Your task to perform on an android device: Clear the cart on ebay. Add "macbook pro 15 inch" to the cart on ebay Image 0: 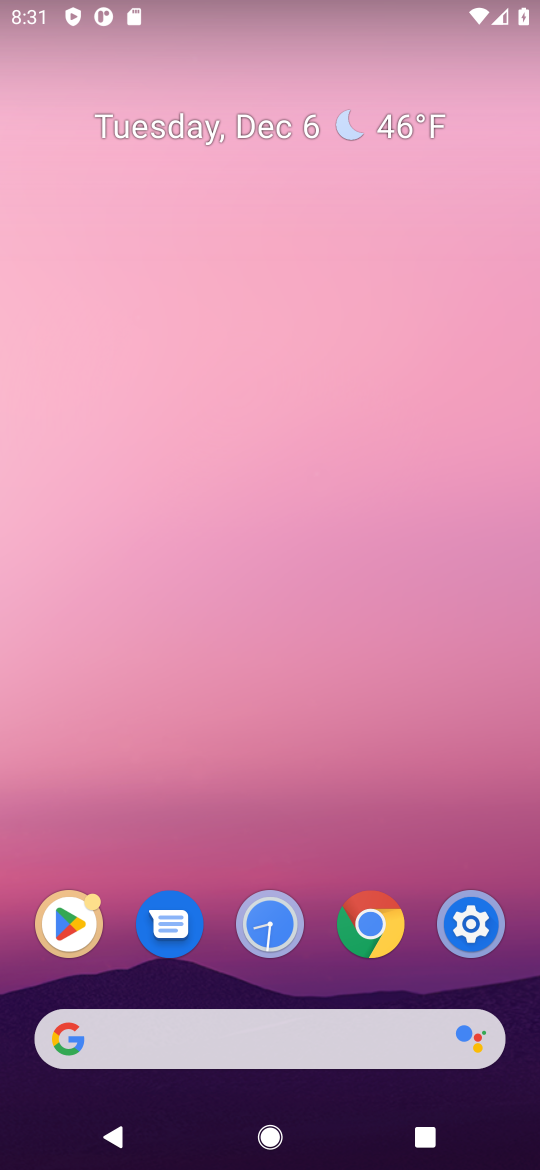
Step 0: click (253, 1047)
Your task to perform on an android device: Clear the cart on ebay. Add "macbook pro 15 inch" to the cart on ebay Image 1: 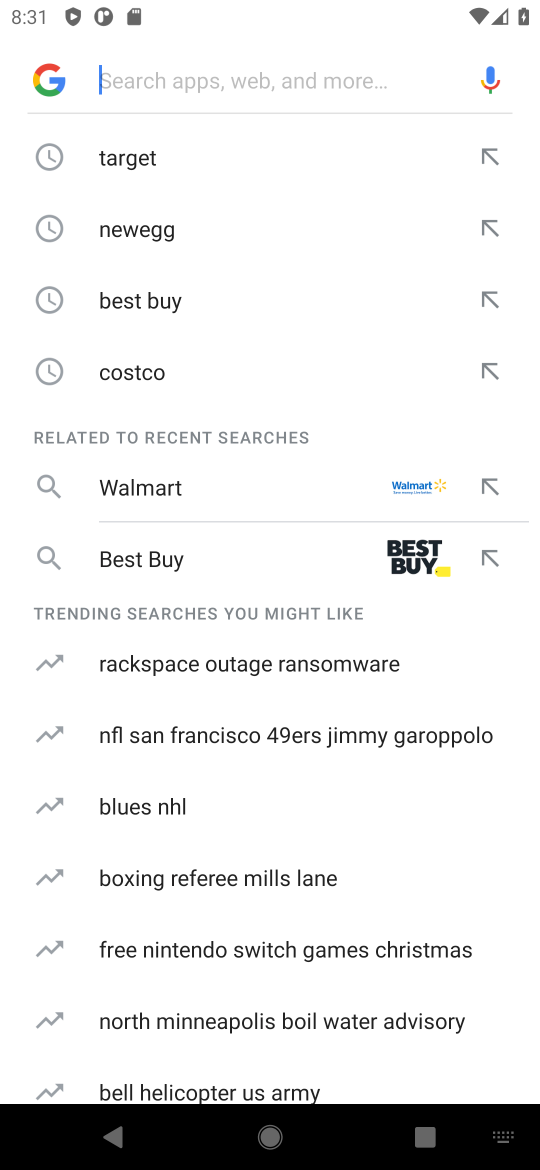
Step 1: type "ebay"
Your task to perform on an android device: Clear the cart on ebay. Add "macbook pro 15 inch" to the cart on ebay Image 2: 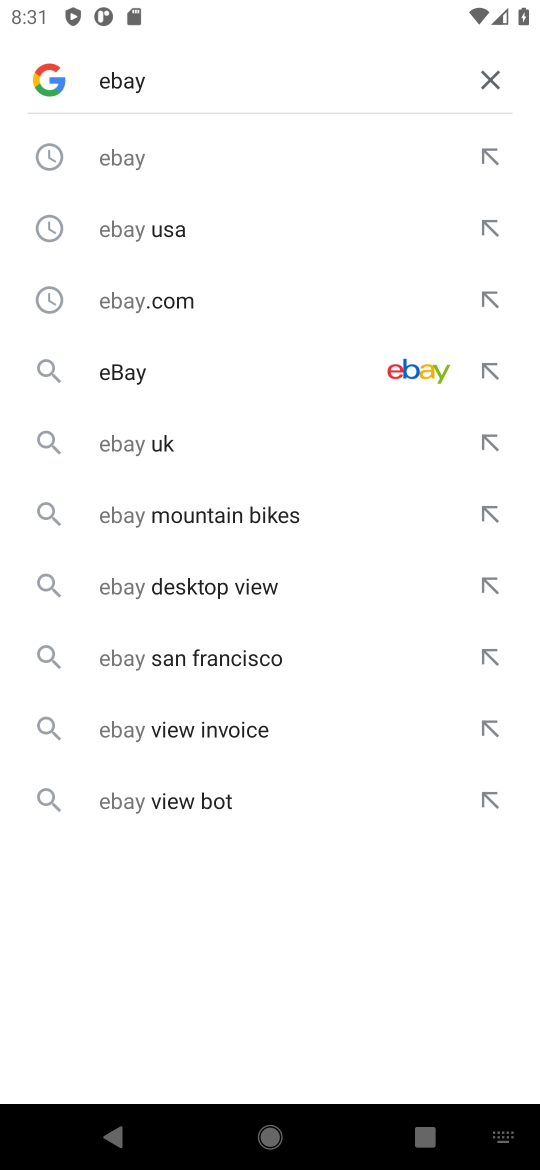
Step 2: click (298, 370)
Your task to perform on an android device: Clear the cart on ebay. Add "macbook pro 15 inch" to the cart on ebay Image 3: 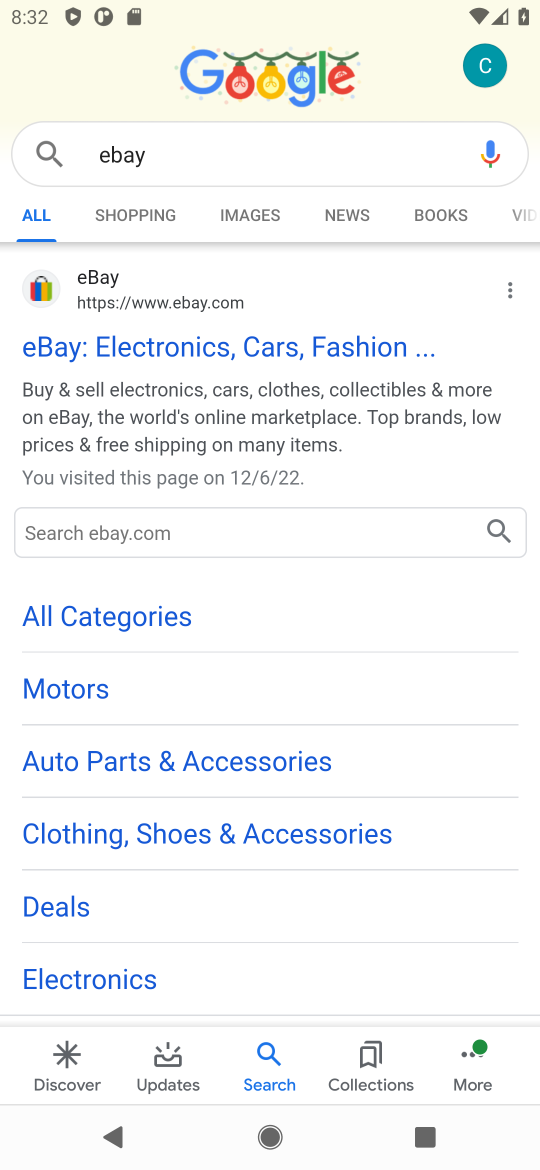
Step 3: click (247, 343)
Your task to perform on an android device: Clear the cart on ebay. Add "macbook pro 15 inch" to the cart on ebay Image 4: 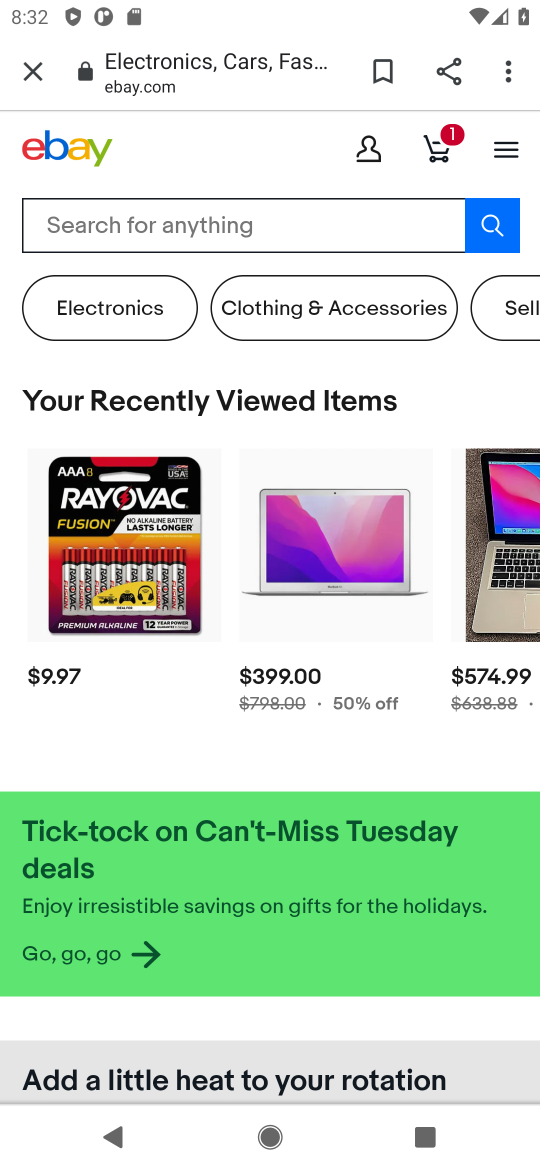
Step 4: click (275, 232)
Your task to perform on an android device: Clear the cart on ebay. Add "macbook pro 15 inch" to the cart on ebay Image 5: 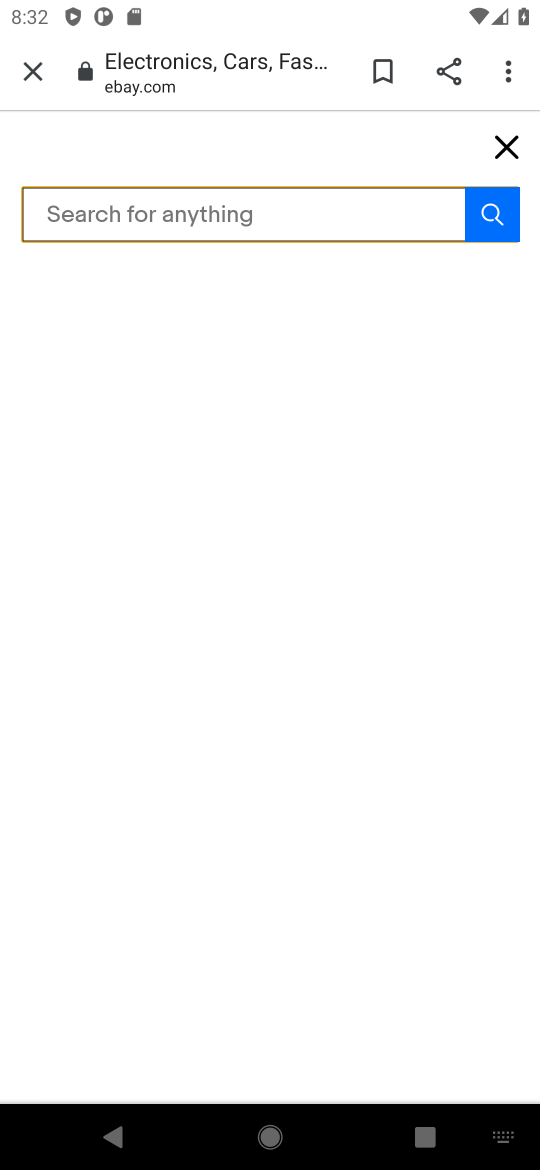
Step 5: type "macbook pro 15 inch"
Your task to perform on an android device: Clear the cart on ebay. Add "macbook pro 15 inch" to the cart on ebay Image 6: 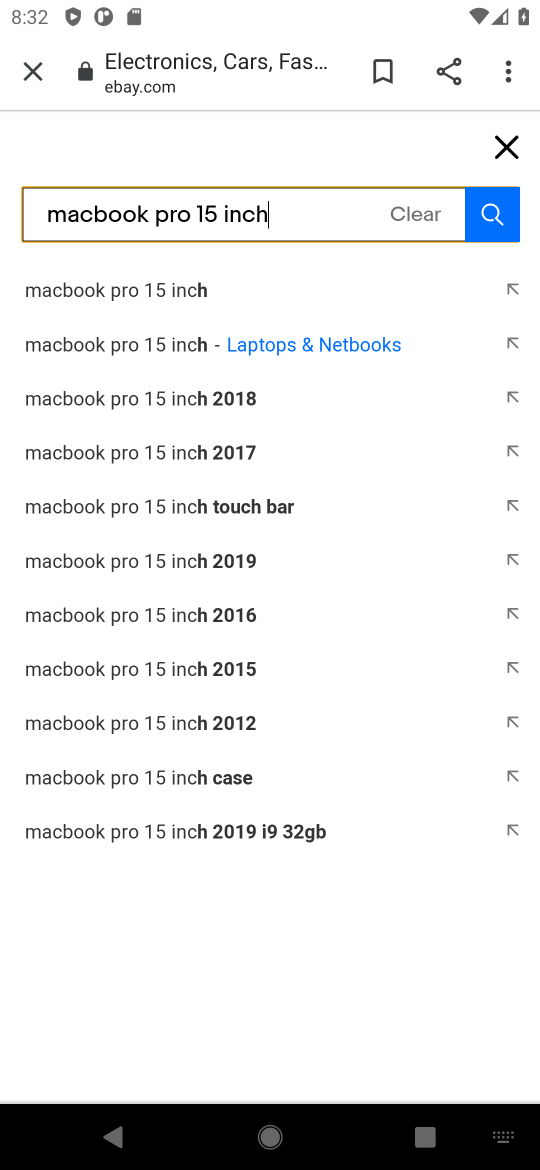
Step 6: click (490, 211)
Your task to perform on an android device: Clear the cart on ebay. Add "macbook pro 15 inch" to the cart on ebay Image 7: 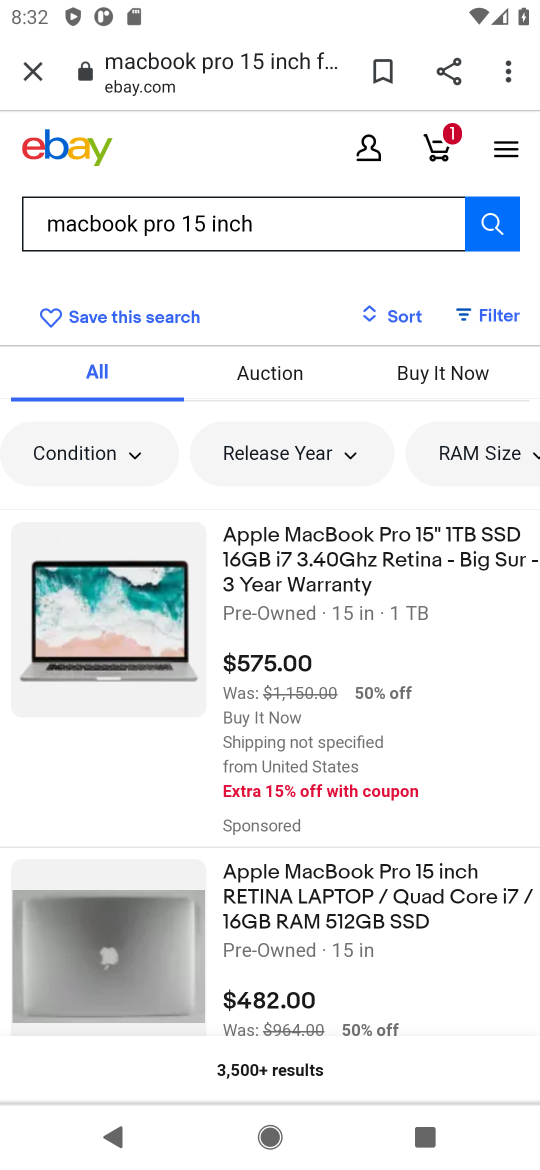
Step 7: click (260, 536)
Your task to perform on an android device: Clear the cart on ebay. Add "macbook pro 15 inch" to the cart on ebay Image 8: 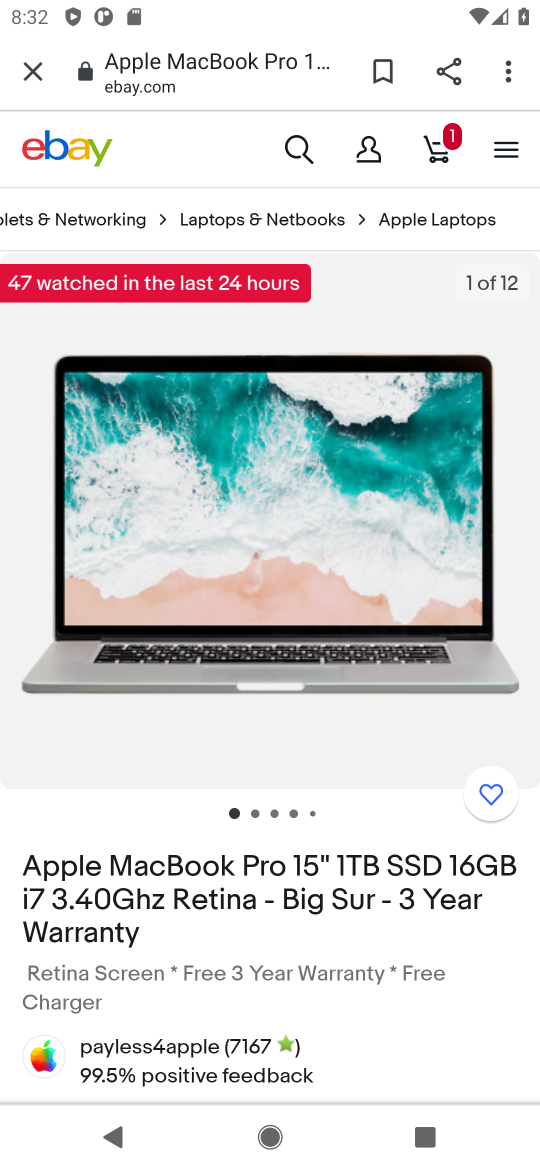
Step 8: drag from (288, 828) to (315, 386)
Your task to perform on an android device: Clear the cart on ebay. Add "macbook pro 15 inch" to the cart on ebay Image 9: 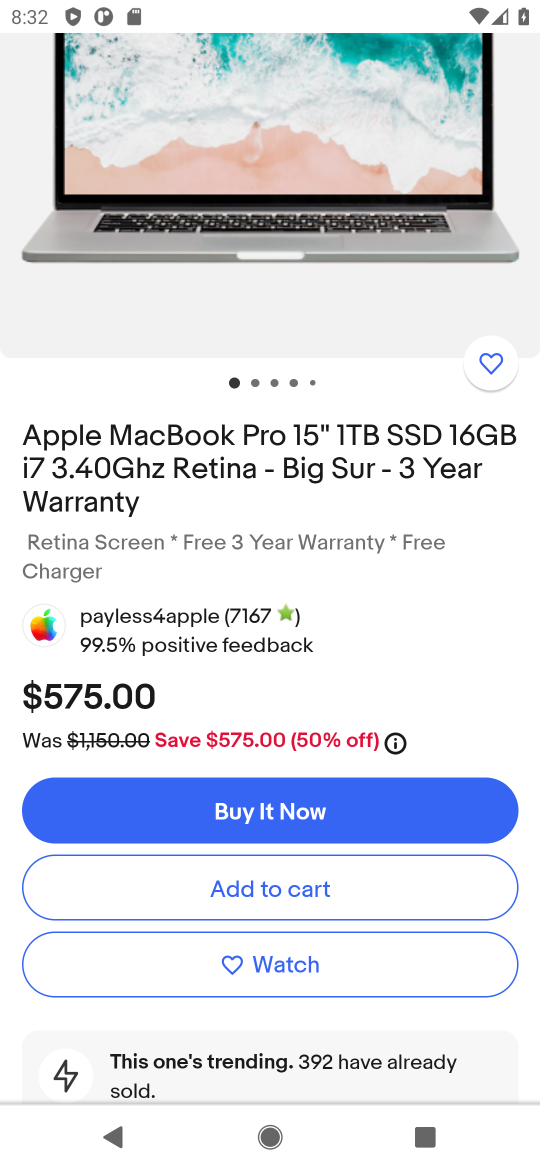
Step 9: click (347, 869)
Your task to perform on an android device: Clear the cart on ebay. Add "macbook pro 15 inch" to the cart on ebay Image 10: 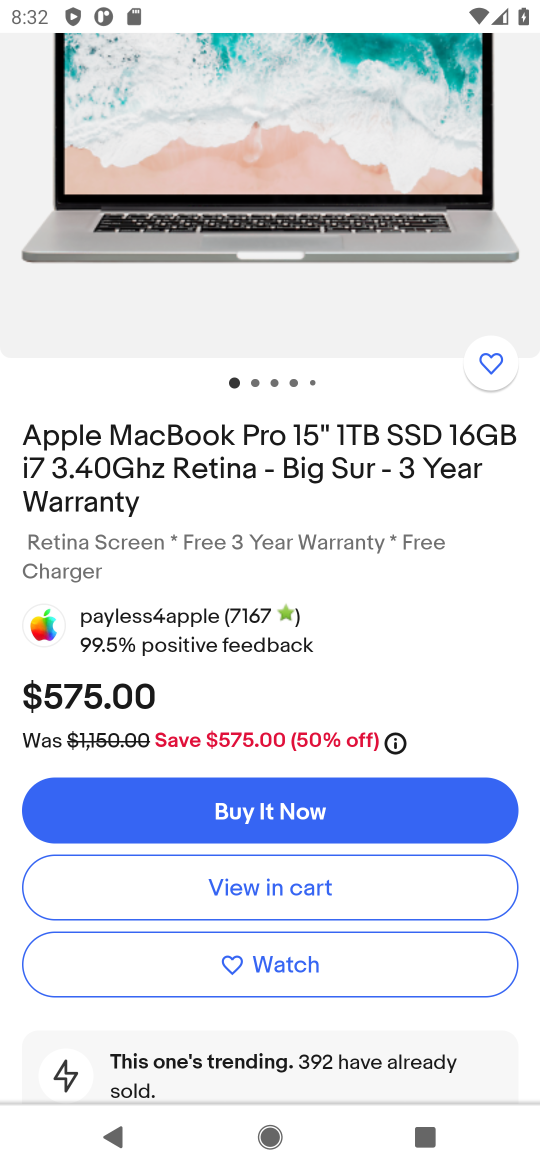
Step 10: task complete